Your task to perform on an android device: Search for sushi restaurants on Maps Image 0: 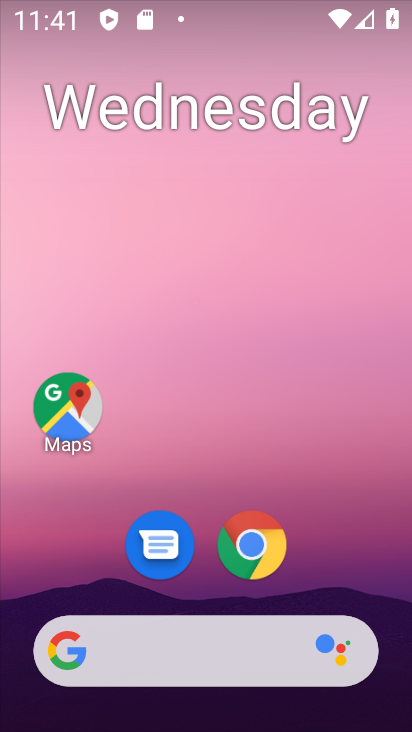
Step 0: click (47, 410)
Your task to perform on an android device: Search for sushi restaurants on Maps Image 1: 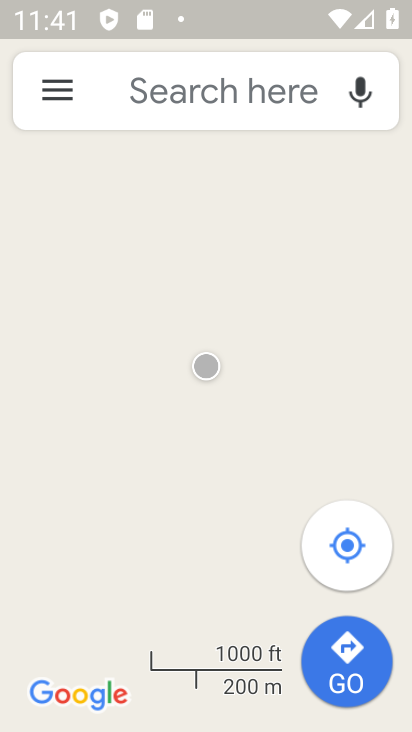
Step 1: click (149, 110)
Your task to perform on an android device: Search for sushi restaurants on Maps Image 2: 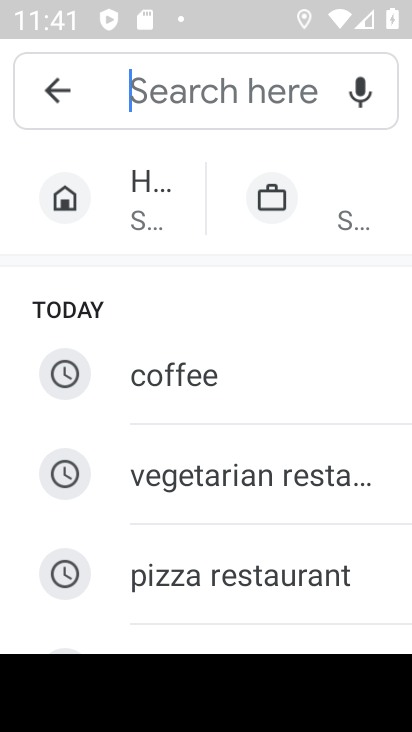
Step 2: type "sushi restaurant"
Your task to perform on an android device: Search for sushi restaurants on Maps Image 3: 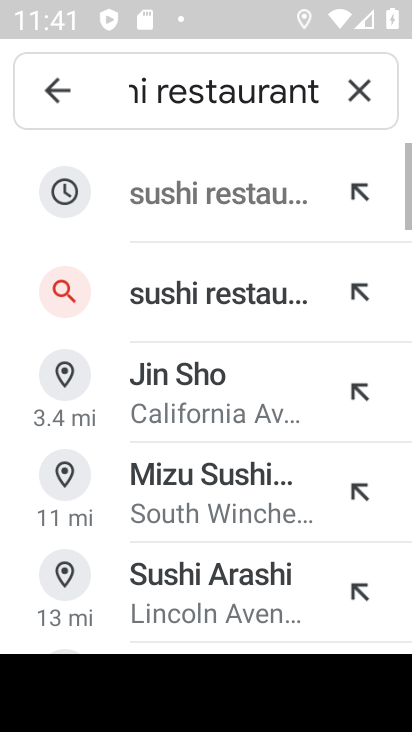
Step 3: click (170, 294)
Your task to perform on an android device: Search for sushi restaurants on Maps Image 4: 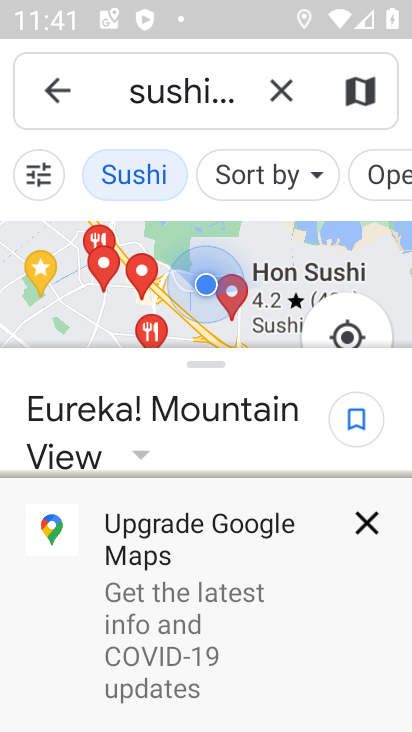
Step 4: click (364, 523)
Your task to perform on an android device: Search for sushi restaurants on Maps Image 5: 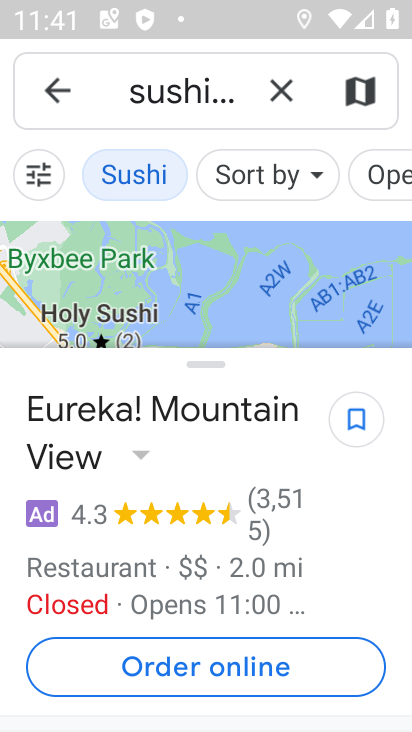
Step 5: task complete